Your task to perform on an android device: Open internet settings Image 0: 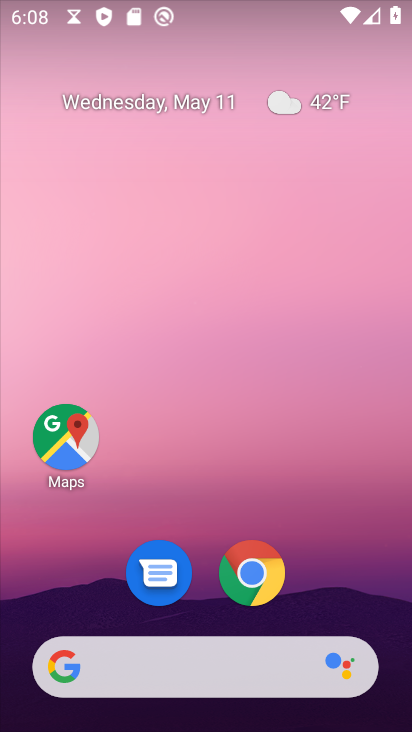
Step 0: drag from (304, 558) to (236, 160)
Your task to perform on an android device: Open internet settings Image 1: 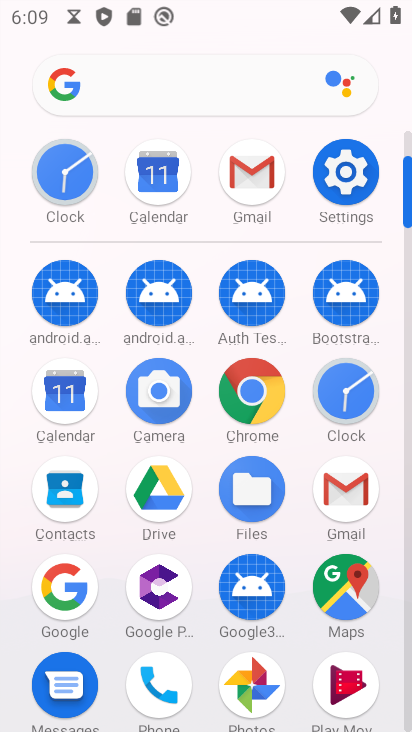
Step 1: click (349, 196)
Your task to perform on an android device: Open internet settings Image 2: 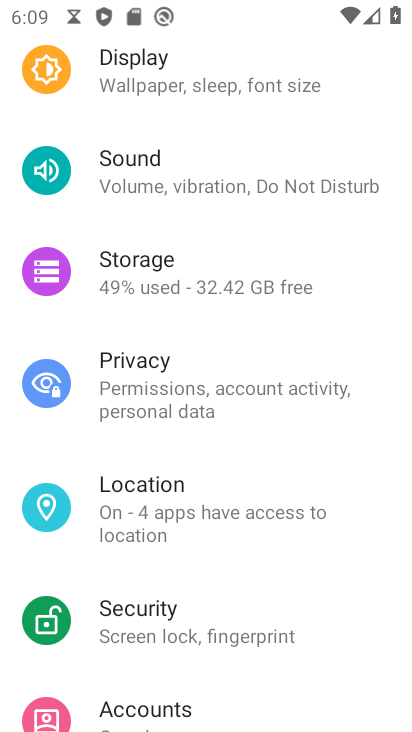
Step 2: drag from (312, 186) to (311, 563)
Your task to perform on an android device: Open internet settings Image 3: 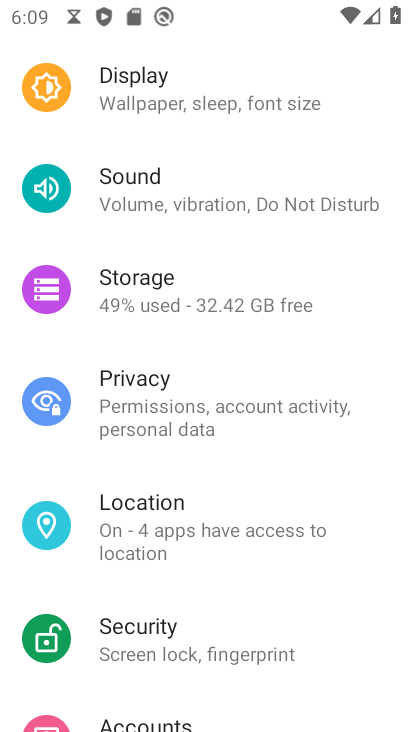
Step 3: drag from (227, 219) to (186, 665)
Your task to perform on an android device: Open internet settings Image 4: 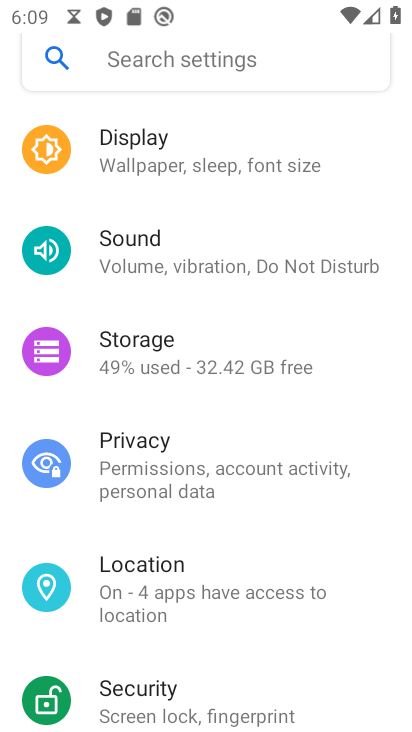
Step 4: drag from (207, 288) to (207, 712)
Your task to perform on an android device: Open internet settings Image 5: 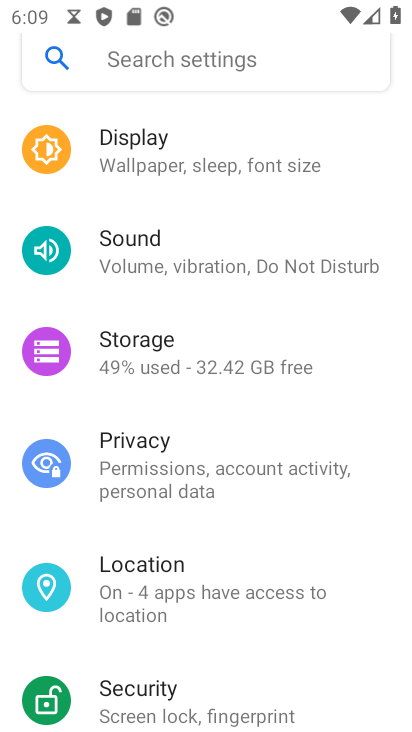
Step 5: drag from (213, 240) to (217, 694)
Your task to perform on an android device: Open internet settings Image 6: 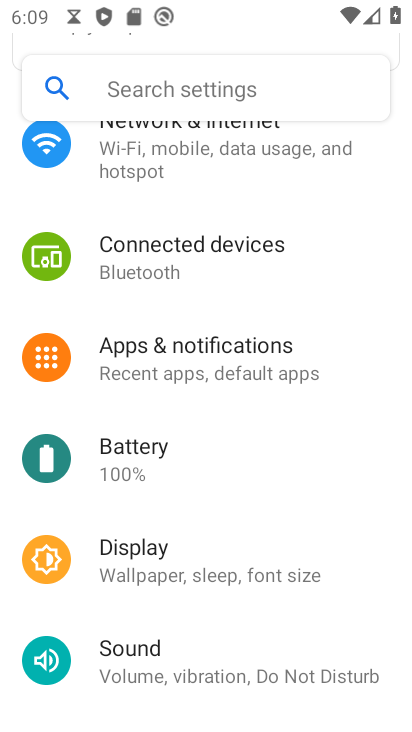
Step 6: click (165, 160)
Your task to perform on an android device: Open internet settings Image 7: 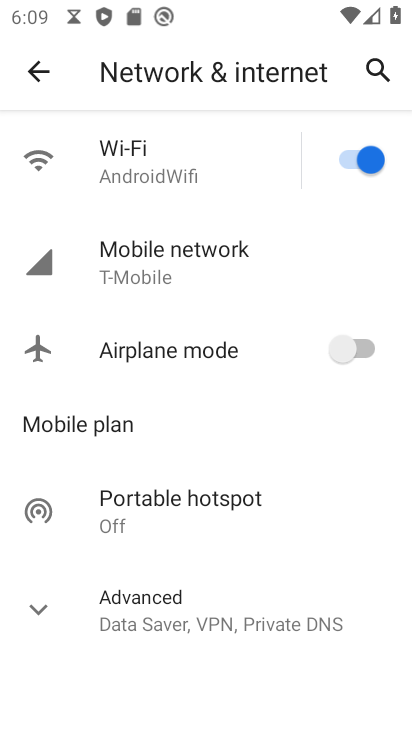
Step 7: task complete